Your task to perform on an android device: choose inbox layout in the gmail app Image 0: 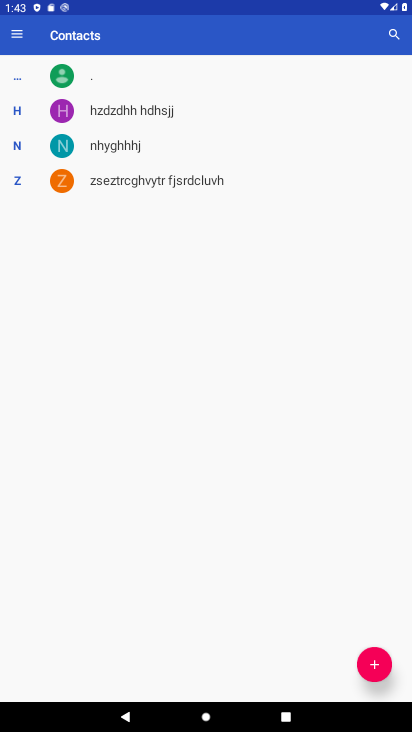
Step 0: press home button
Your task to perform on an android device: choose inbox layout in the gmail app Image 1: 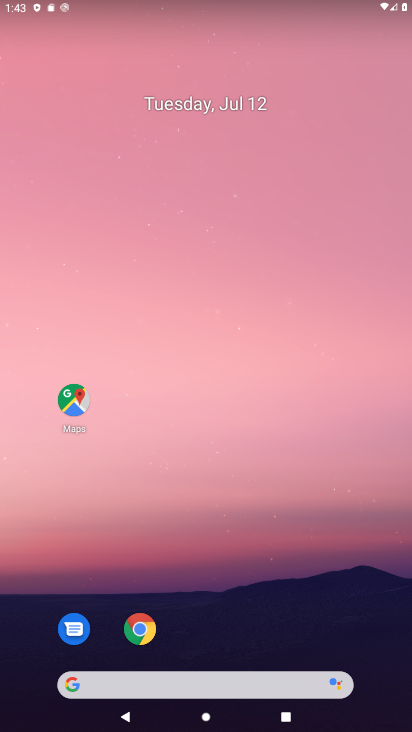
Step 1: drag from (244, 626) to (210, 172)
Your task to perform on an android device: choose inbox layout in the gmail app Image 2: 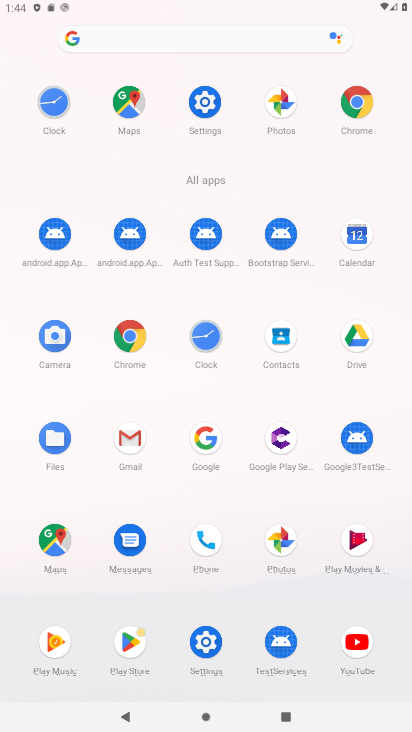
Step 2: click (133, 442)
Your task to perform on an android device: choose inbox layout in the gmail app Image 3: 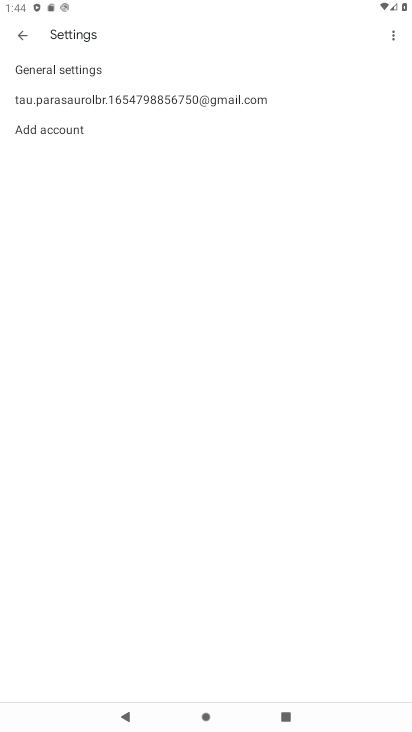
Step 3: click (96, 96)
Your task to perform on an android device: choose inbox layout in the gmail app Image 4: 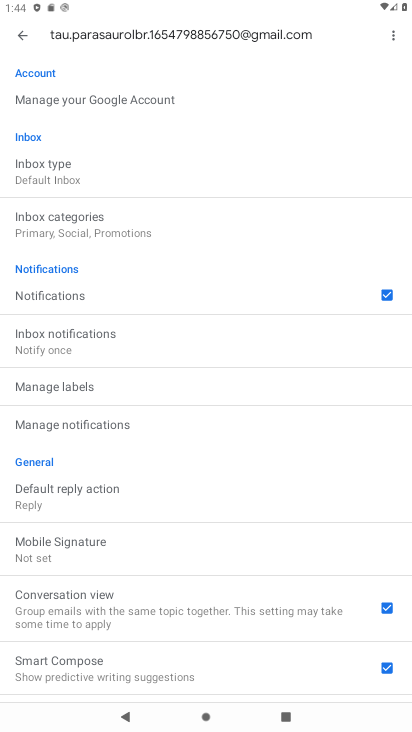
Step 4: click (105, 165)
Your task to perform on an android device: choose inbox layout in the gmail app Image 5: 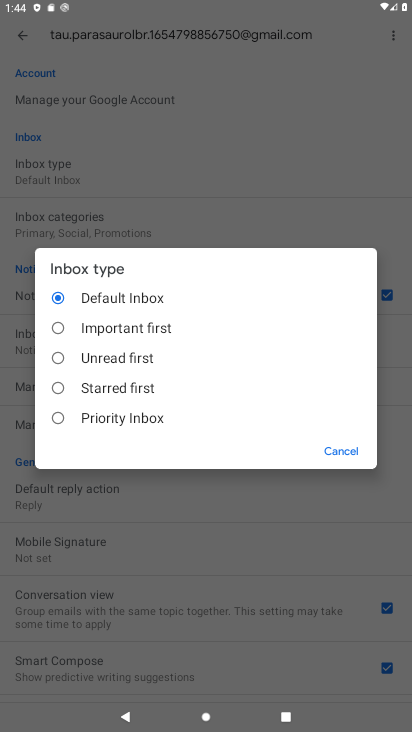
Step 5: click (127, 326)
Your task to perform on an android device: choose inbox layout in the gmail app Image 6: 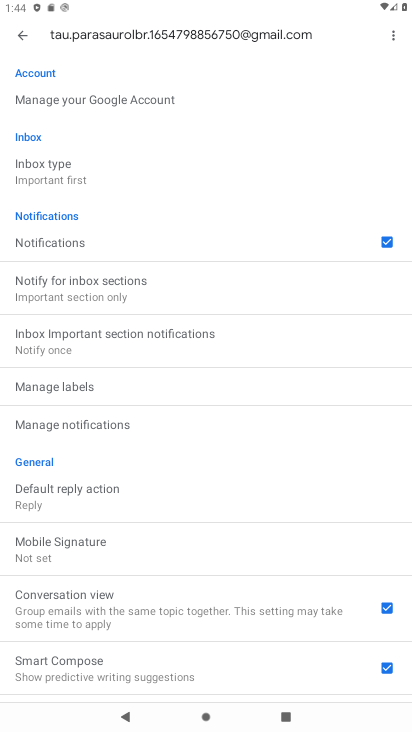
Step 6: task complete